Your task to perform on an android device: open chrome privacy settings Image 0: 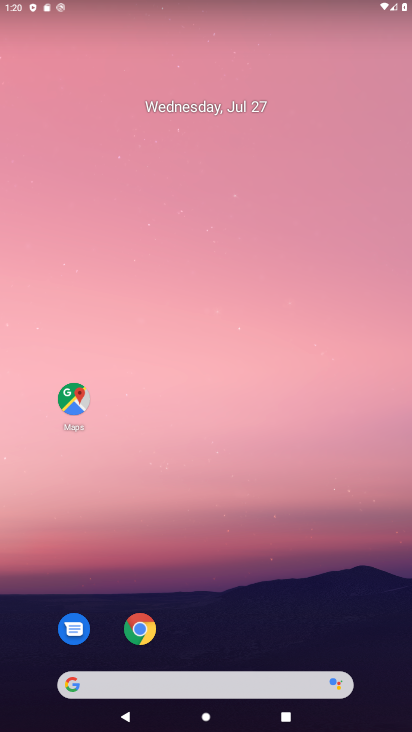
Step 0: drag from (242, 624) to (63, 19)
Your task to perform on an android device: open chrome privacy settings Image 1: 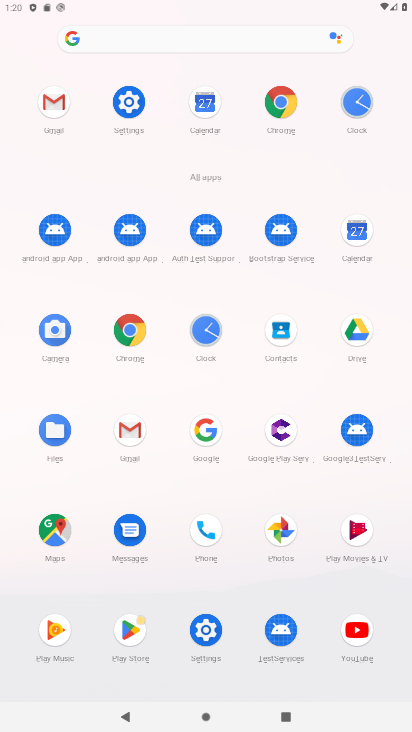
Step 1: click (286, 108)
Your task to perform on an android device: open chrome privacy settings Image 2: 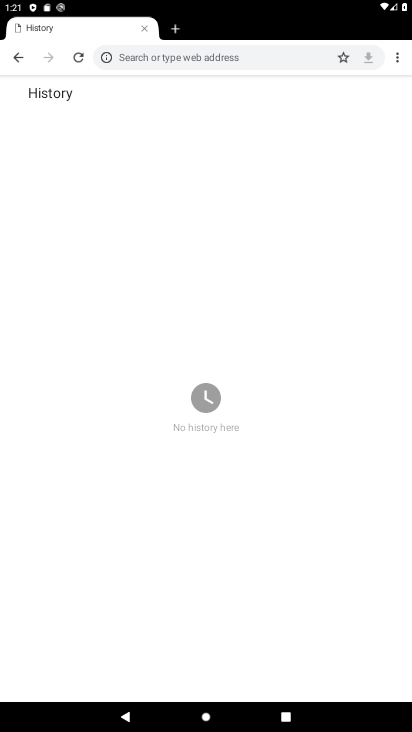
Step 2: drag from (391, 50) to (273, 263)
Your task to perform on an android device: open chrome privacy settings Image 3: 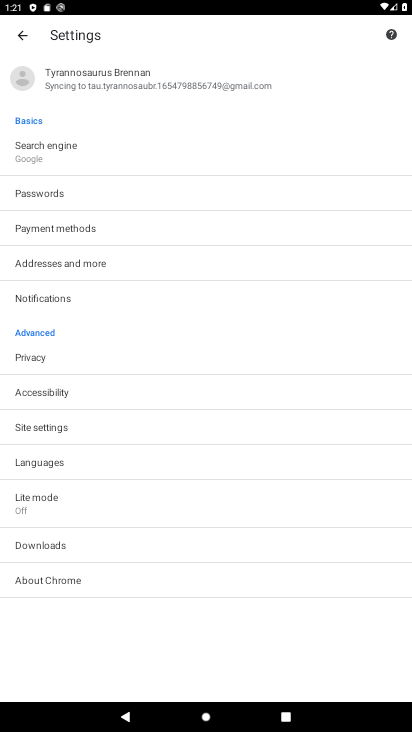
Step 3: click (36, 356)
Your task to perform on an android device: open chrome privacy settings Image 4: 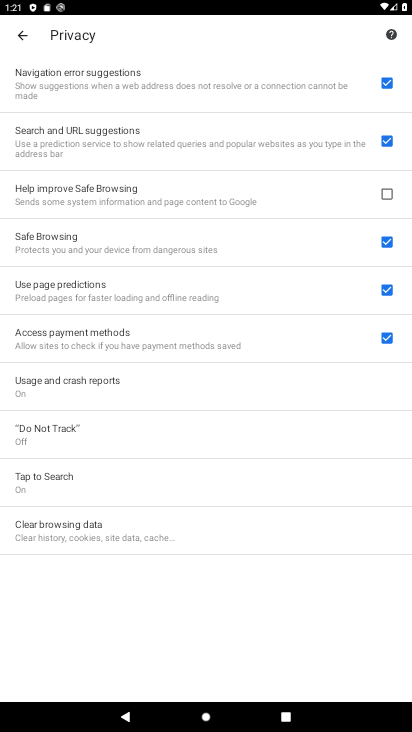
Step 4: task complete